Your task to perform on an android device: Go to Yahoo.com Image 0: 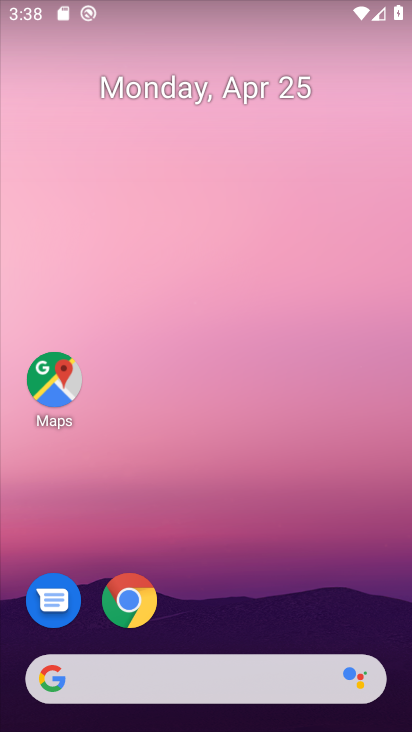
Step 0: click (228, 691)
Your task to perform on an android device: Go to Yahoo.com Image 1: 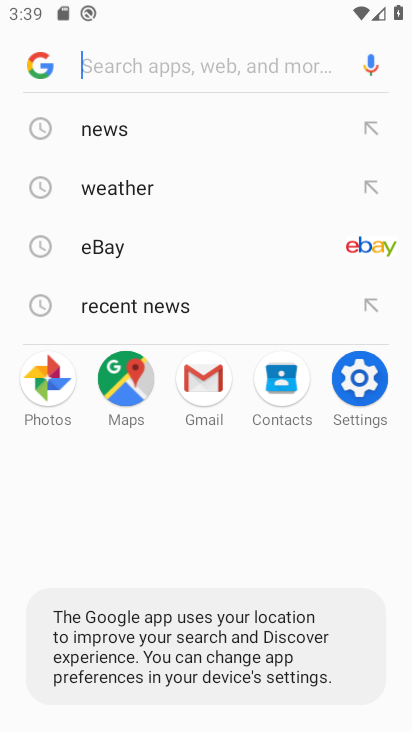
Step 1: click (202, 74)
Your task to perform on an android device: Go to Yahoo.com Image 2: 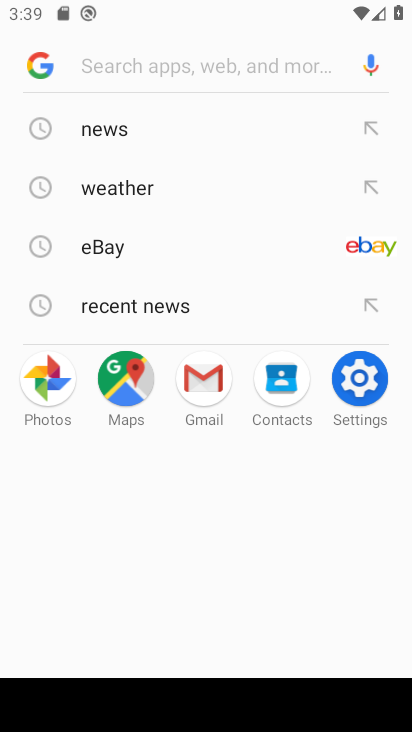
Step 2: type "Yahoo.com"
Your task to perform on an android device: Go to Yahoo.com Image 3: 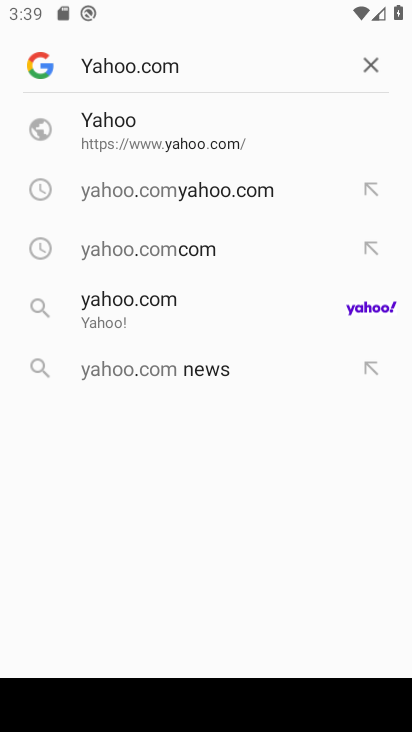
Step 3: click (151, 129)
Your task to perform on an android device: Go to Yahoo.com Image 4: 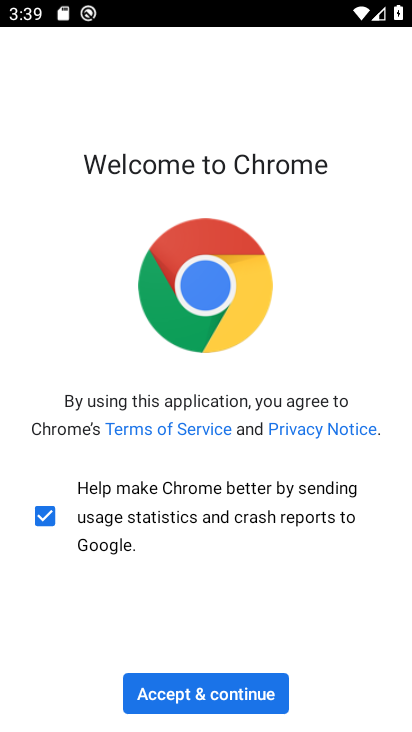
Step 4: click (201, 704)
Your task to perform on an android device: Go to Yahoo.com Image 5: 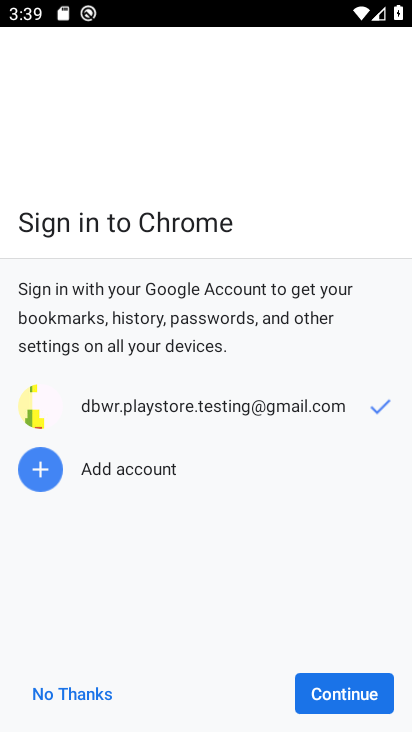
Step 5: click (313, 695)
Your task to perform on an android device: Go to Yahoo.com Image 6: 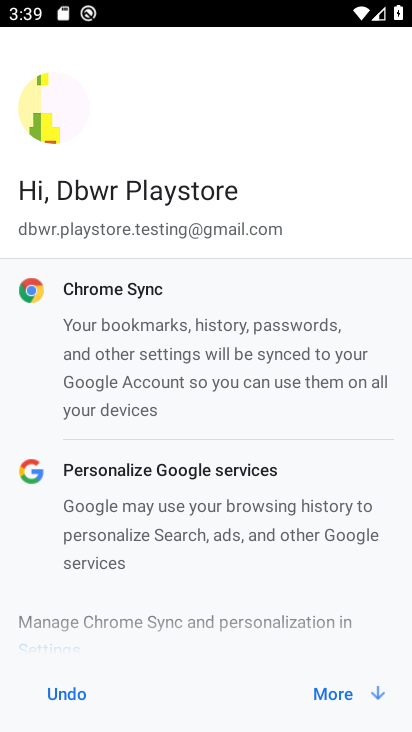
Step 6: click (335, 698)
Your task to perform on an android device: Go to Yahoo.com Image 7: 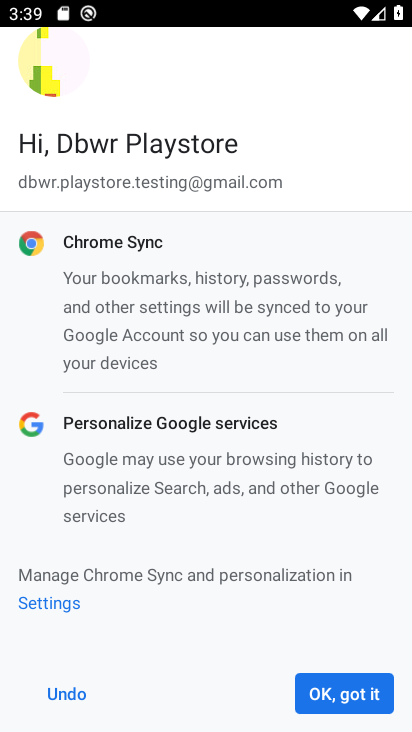
Step 7: click (335, 698)
Your task to perform on an android device: Go to Yahoo.com Image 8: 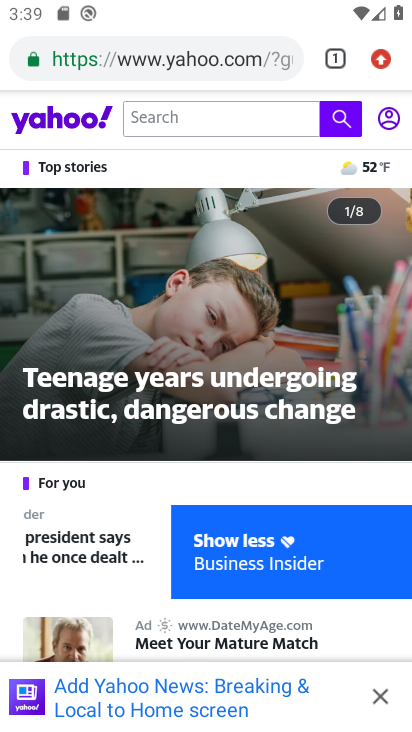
Step 8: task complete